Your task to perform on an android device: create a new album in the google photos Image 0: 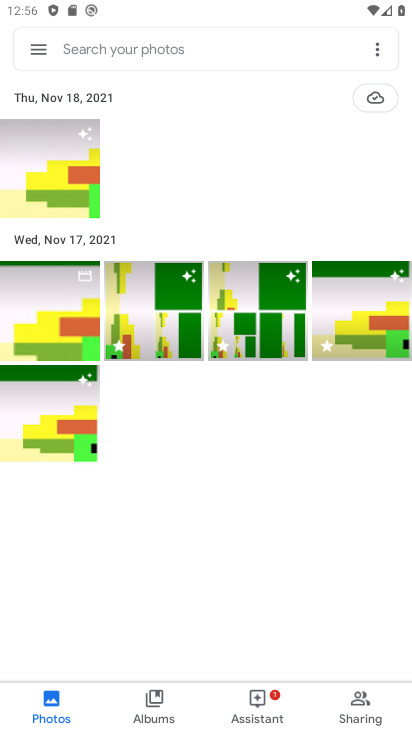
Step 0: press home button
Your task to perform on an android device: create a new album in the google photos Image 1: 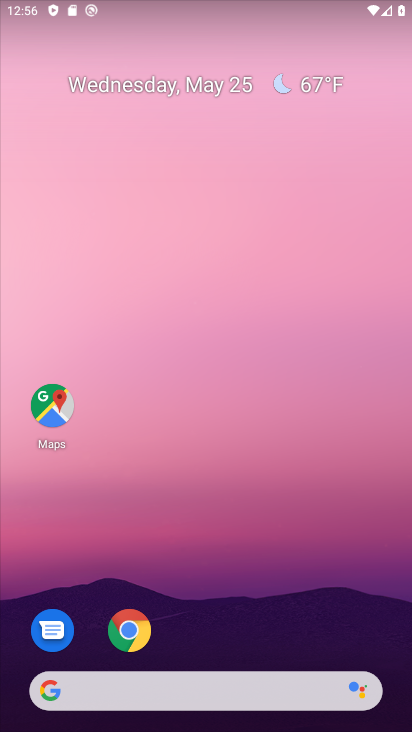
Step 1: drag from (207, 650) to (220, 111)
Your task to perform on an android device: create a new album in the google photos Image 2: 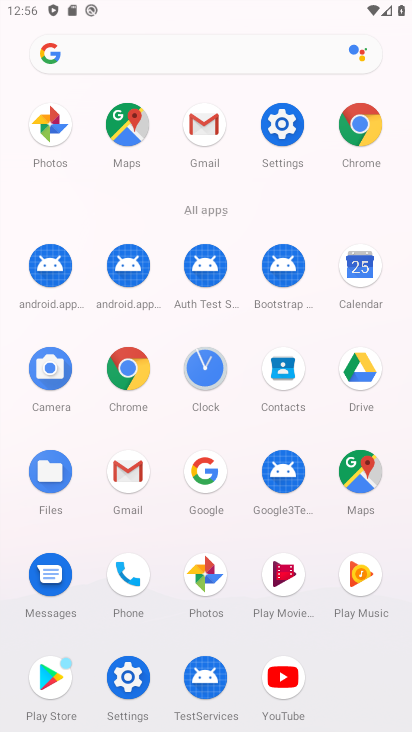
Step 2: click (204, 573)
Your task to perform on an android device: create a new album in the google photos Image 3: 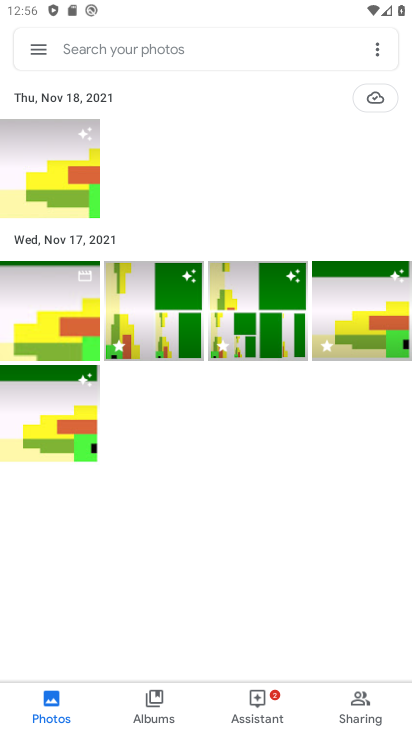
Step 3: click (149, 700)
Your task to perform on an android device: create a new album in the google photos Image 4: 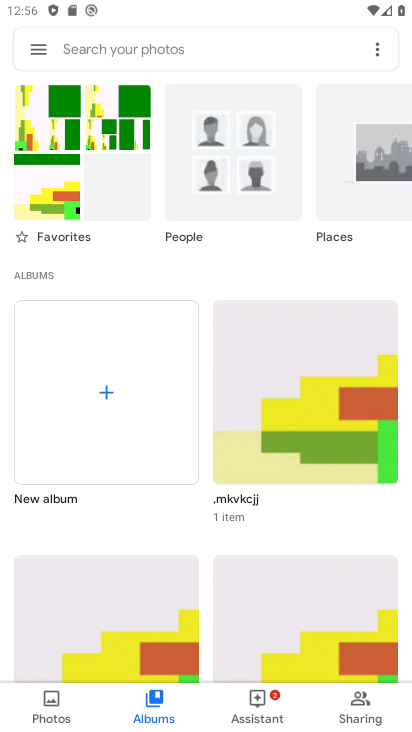
Step 4: click (373, 44)
Your task to perform on an android device: create a new album in the google photos Image 5: 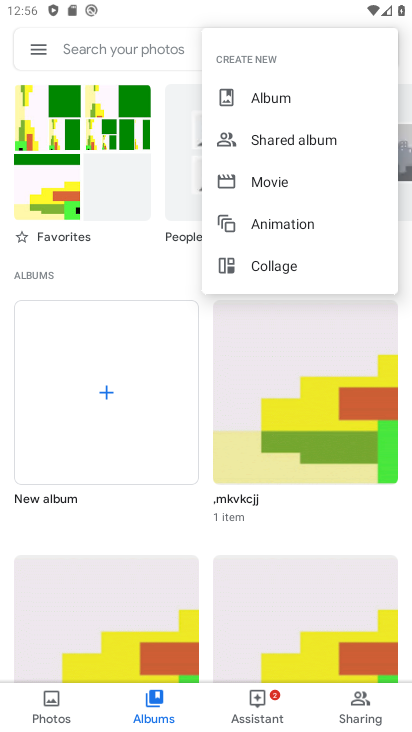
Step 5: click (272, 96)
Your task to perform on an android device: create a new album in the google photos Image 6: 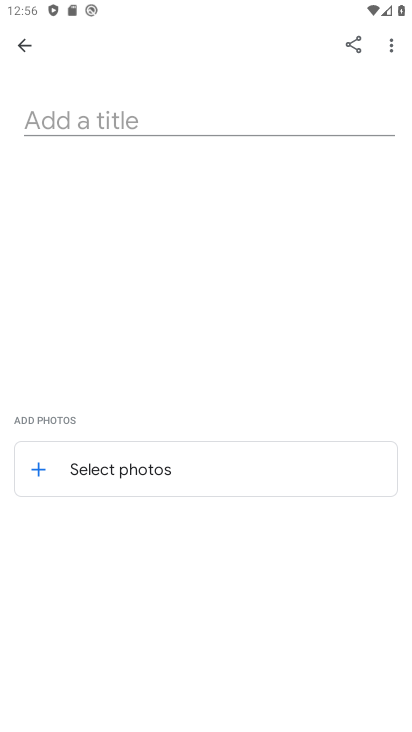
Step 6: click (36, 464)
Your task to perform on an android device: create a new album in the google photos Image 7: 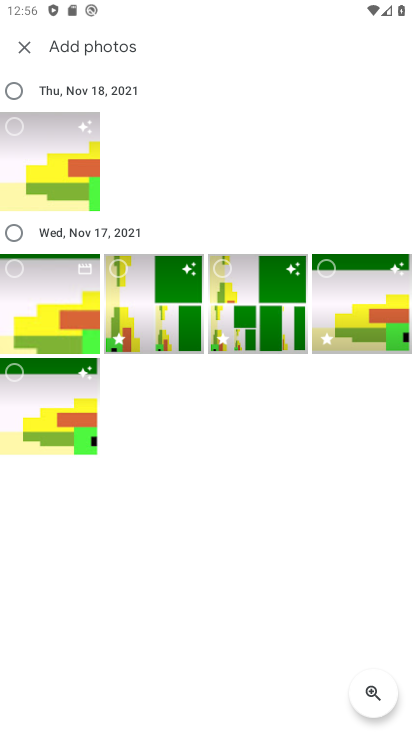
Step 7: click (19, 231)
Your task to perform on an android device: create a new album in the google photos Image 8: 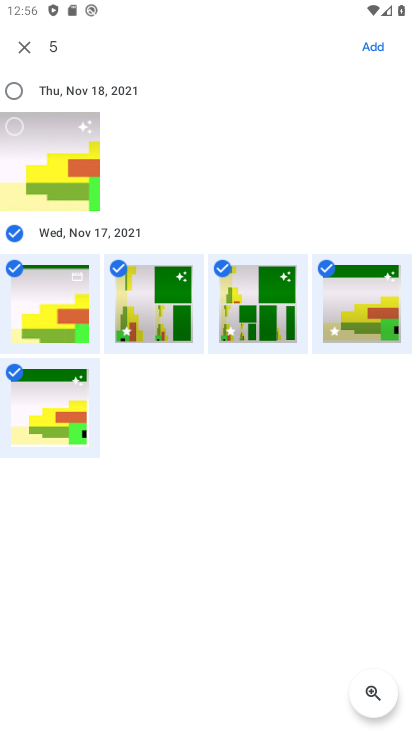
Step 8: task complete